Your task to perform on an android device: Open calendar and show me the fourth week of next month Image 0: 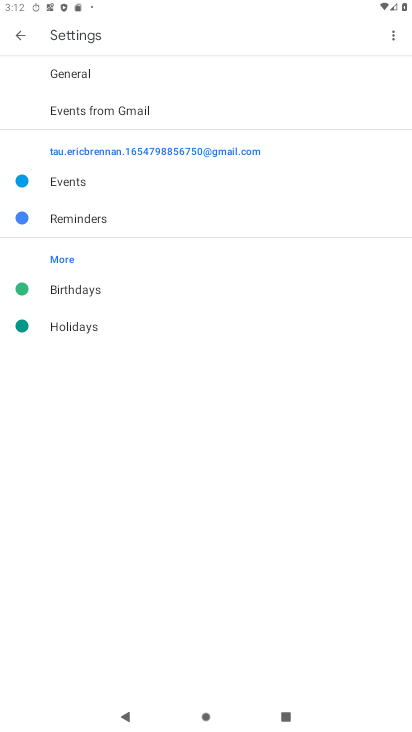
Step 0: press home button
Your task to perform on an android device: Open calendar and show me the fourth week of next month Image 1: 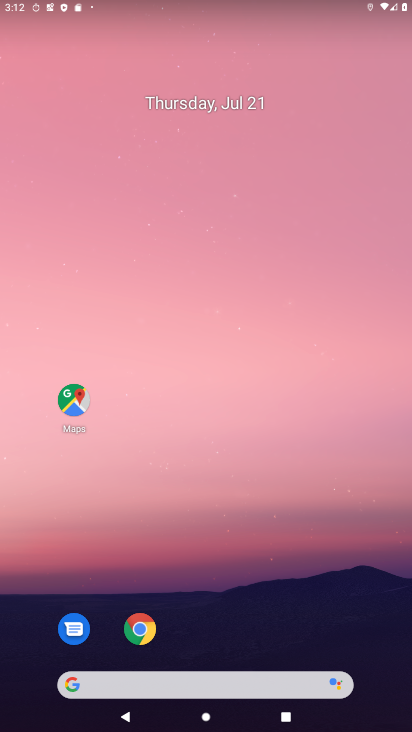
Step 1: drag from (237, 598) to (245, 80)
Your task to perform on an android device: Open calendar and show me the fourth week of next month Image 2: 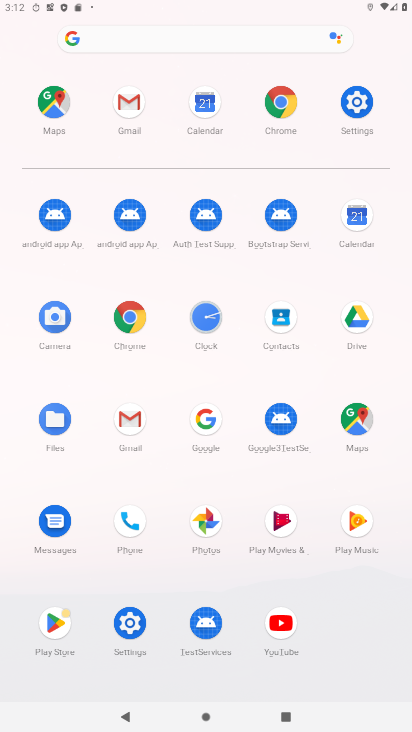
Step 2: click (354, 221)
Your task to perform on an android device: Open calendar and show me the fourth week of next month Image 3: 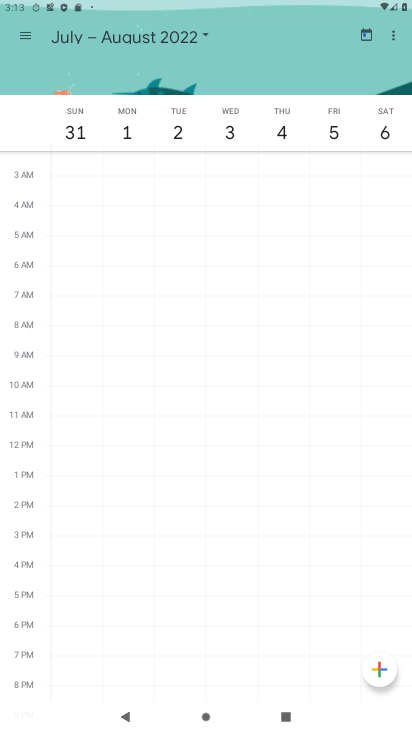
Step 3: task complete